Your task to perform on an android device: Go to calendar. Show me events next week Image 0: 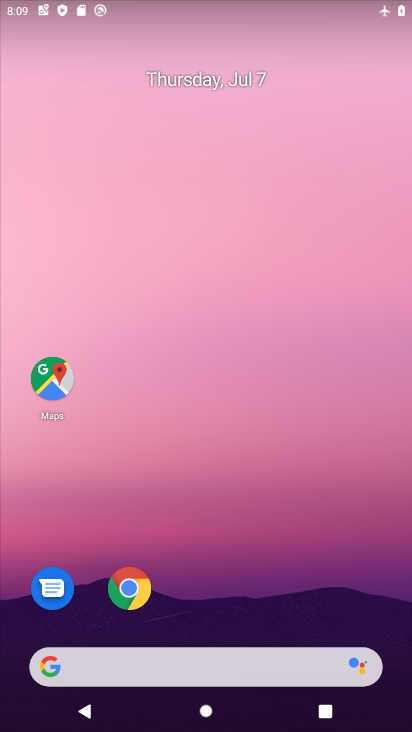
Step 0: drag from (312, 605) to (253, 159)
Your task to perform on an android device: Go to calendar. Show me events next week Image 1: 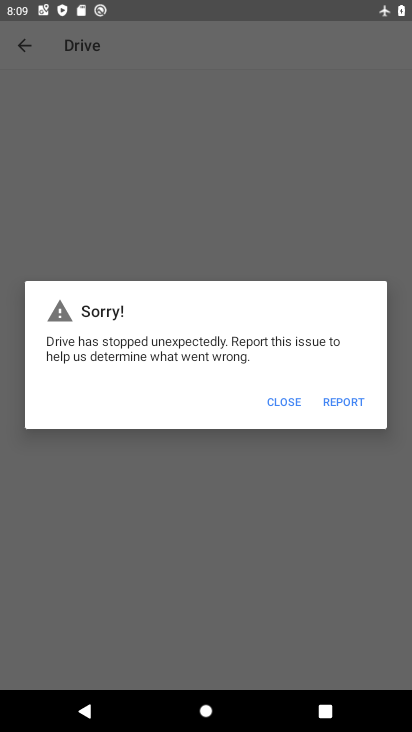
Step 1: press home button
Your task to perform on an android device: Go to calendar. Show me events next week Image 2: 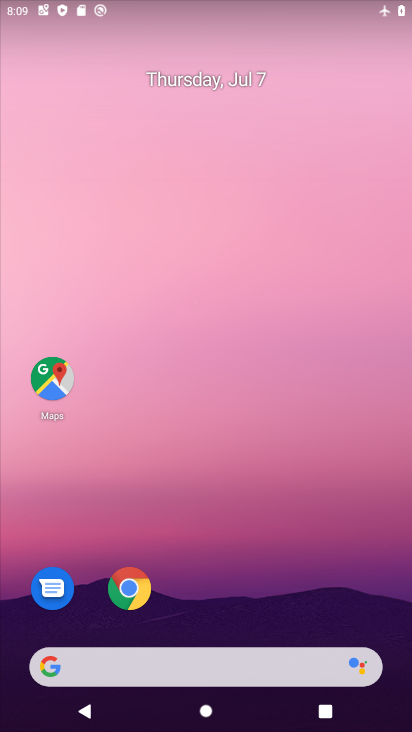
Step 2: drag from (247, 418) to (246, 139)
Your task to perform on an android device: Go to calendar. Show me events next week Image 3: 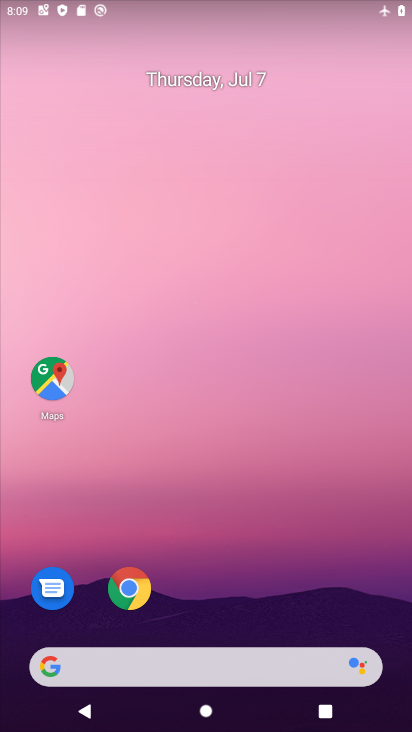
Step 3: drag from (305, 612) to (270, 55)
Your task to perform on an android device: Go to calendar. Show me events next week Image 4: 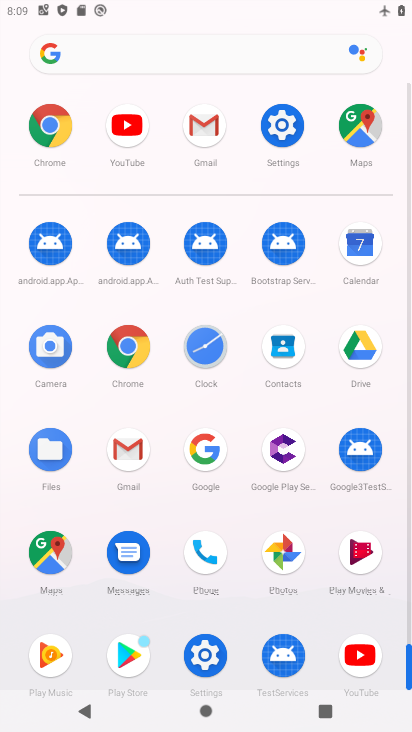
Step 4: click (365, 245)
Your task to perform on an android device: Go to calendar. Show me events next week Image 5: 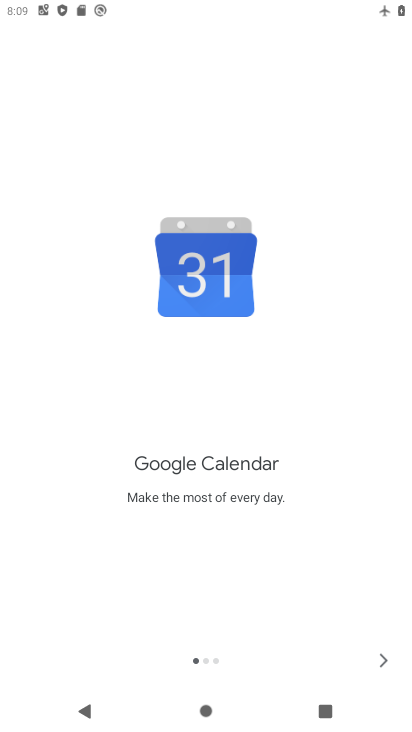
Step 5: click (383, 651)
Your task to perform on an android device: Go to calendar. Show me events next week Image 6: 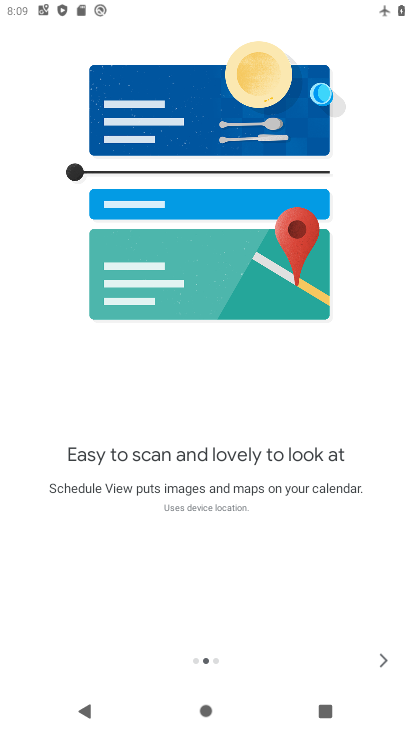
Step 6: click (384, 649)
Your task to perform on an android device: Go to calendar. Show me events next week Image 7: 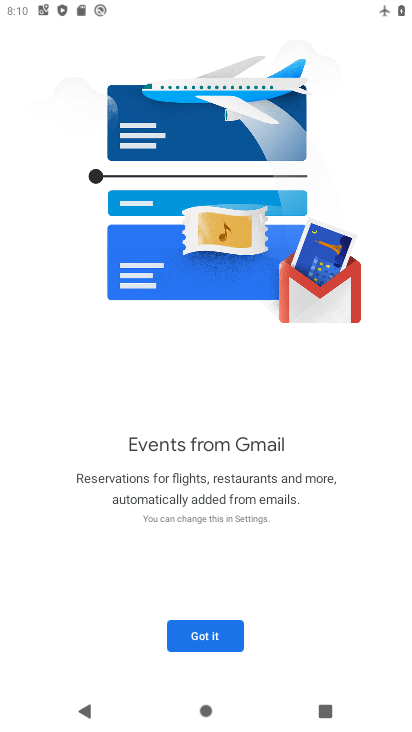
Step 7: click (216, 639)
Your task to perform on an android device: Go to calendar. Show me events next week Image 8: 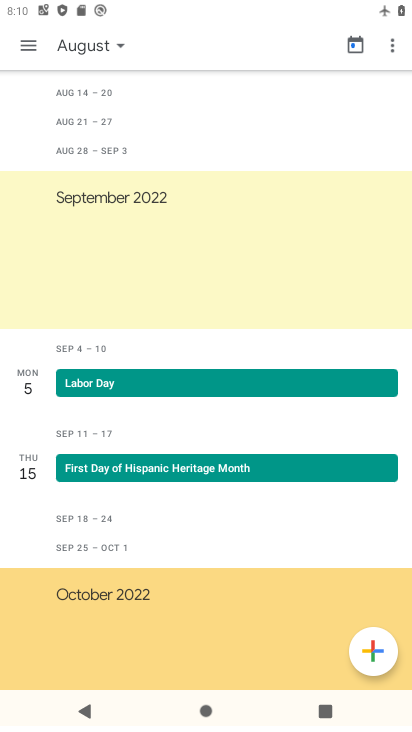
Step 8: click (70, 40)
Your task to perform on an android device: Go to calendar. Show me events next week Image 9: 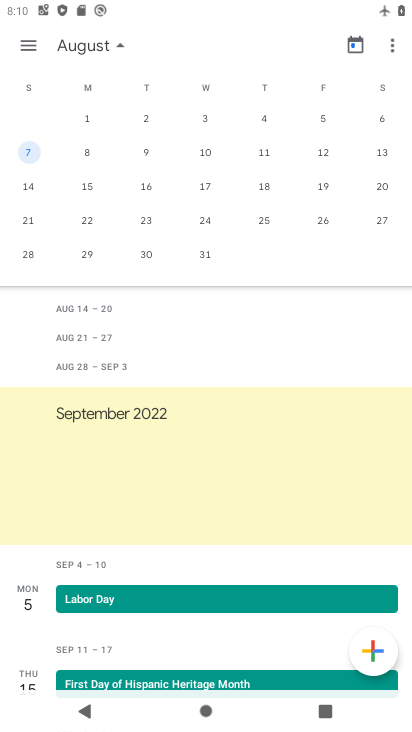
Step 9: drag from (25, 158) to (342, 169)
Your task to perform on an android device: Go to calendar. Show me events next week Image 10: 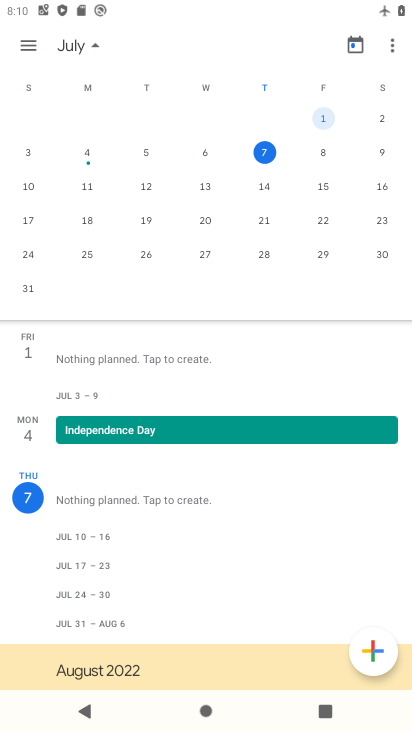
Step 10: click (261, 152)
Your task to perform on an android device: Go to calendar. Show me events next week Image 11: 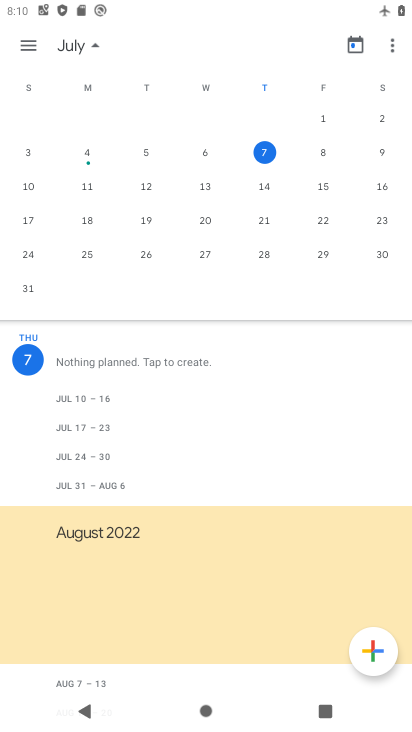
Step 11: click (28, 185)
Your task to perform on an android device: Go to calendar. Show me events next week Image 12: 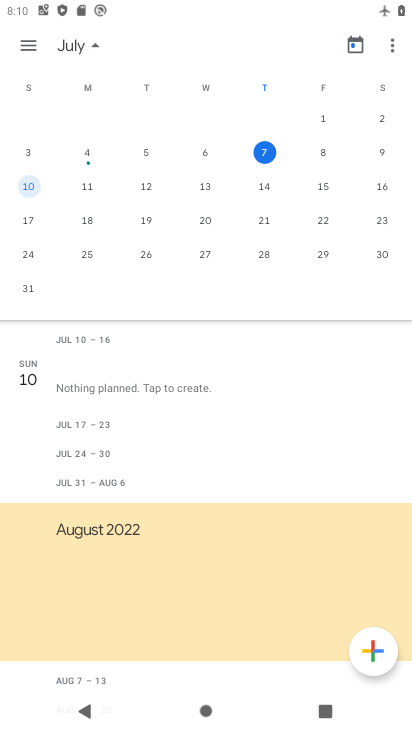
Step 12: click (31, 40)
Your task to perform on an android device: Go to calendar. Show me events next week Image 13: 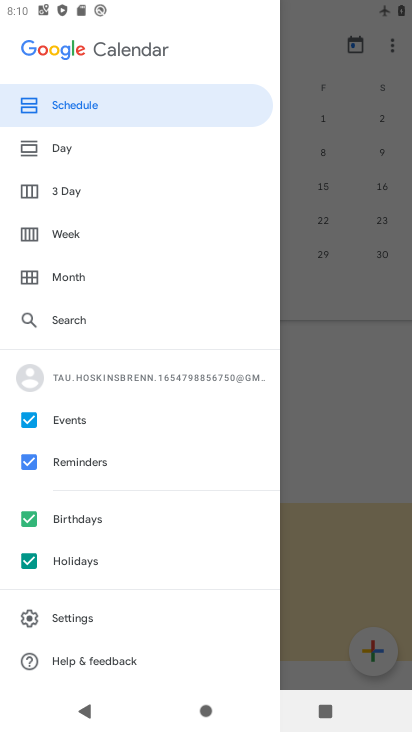
Step 13: click (42, 252)
Your task to perform on an android device: Go to calendar. Show me events next week Image 14: 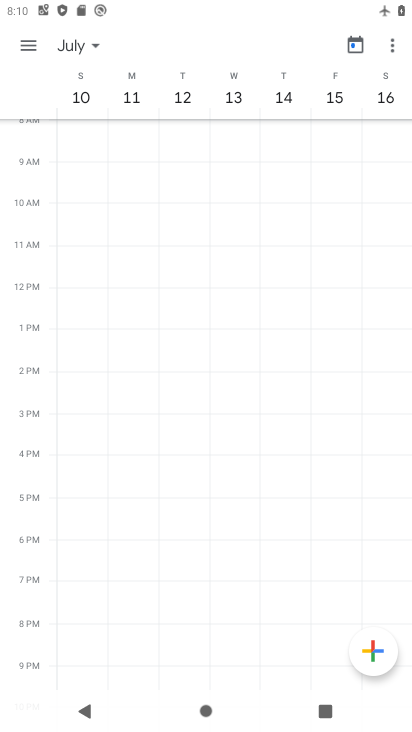
Step 14: task complete